Your task to perform on an android device: change alarm snooze length Image 0: 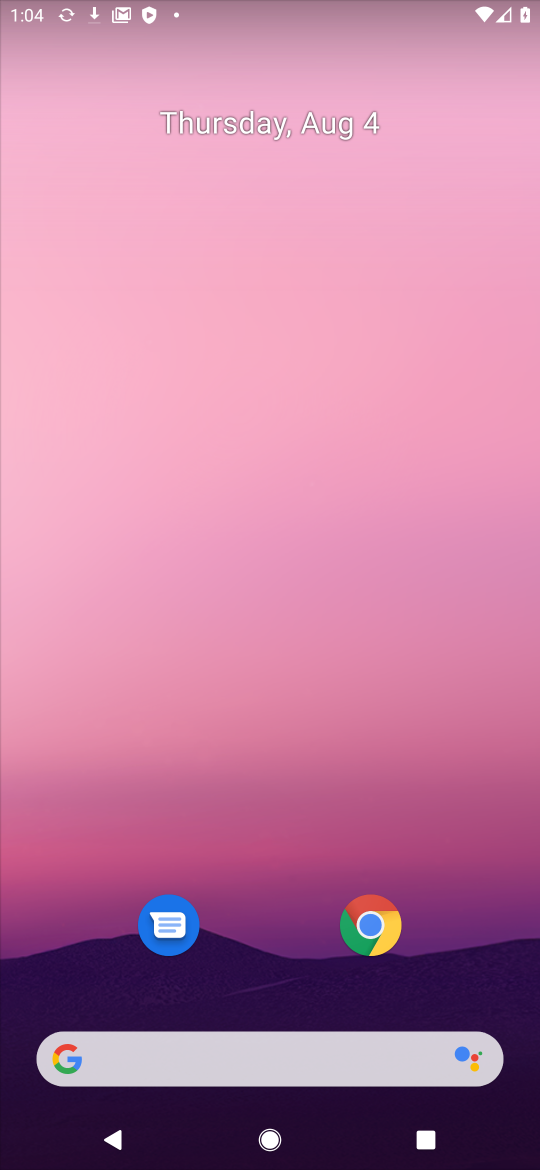
Step 0: drag from (263, 744) to (227, 315)
Your task to perform on an android device: change alarm snooze length Image 1: 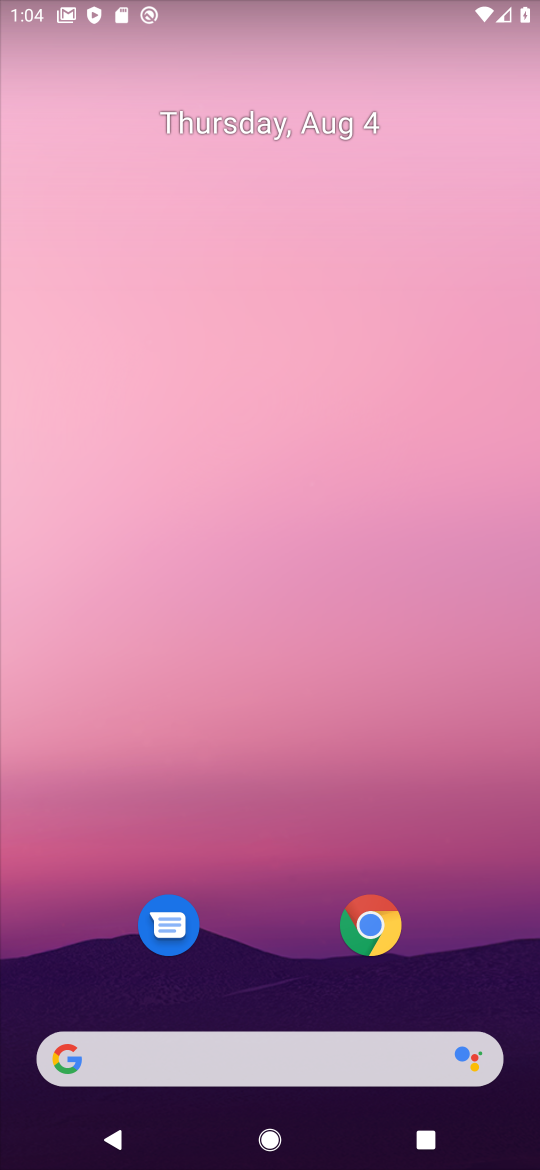
Step 1: drag from (282, 903) to (252, 24)
Your task to perform on an android device: change alarm snooze length Image 2: 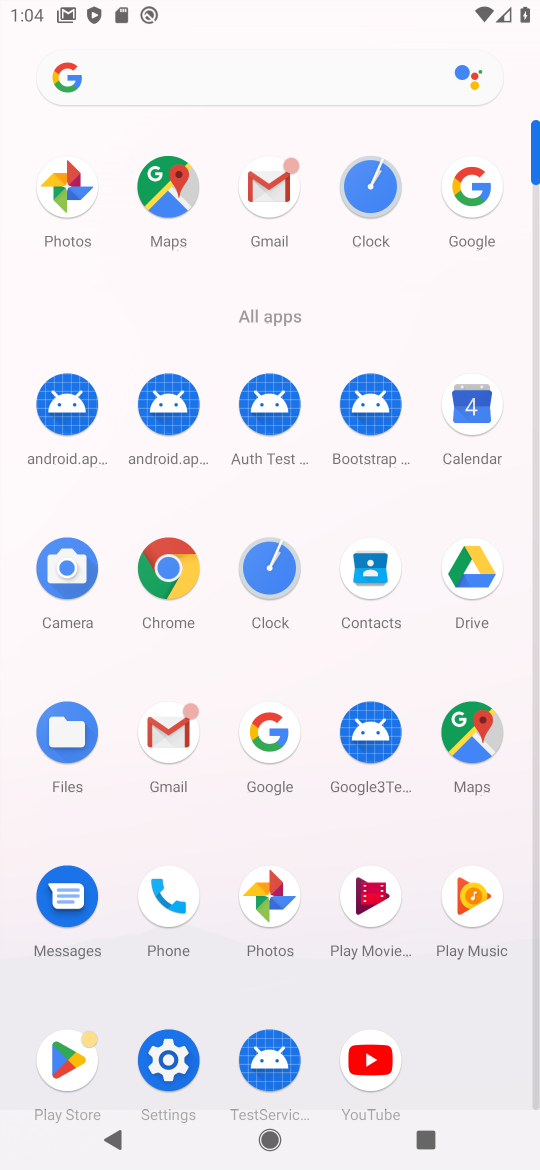
Step 2: click (375, 178)
Your task to perform on an android device: change alarm snooze length Image 3: 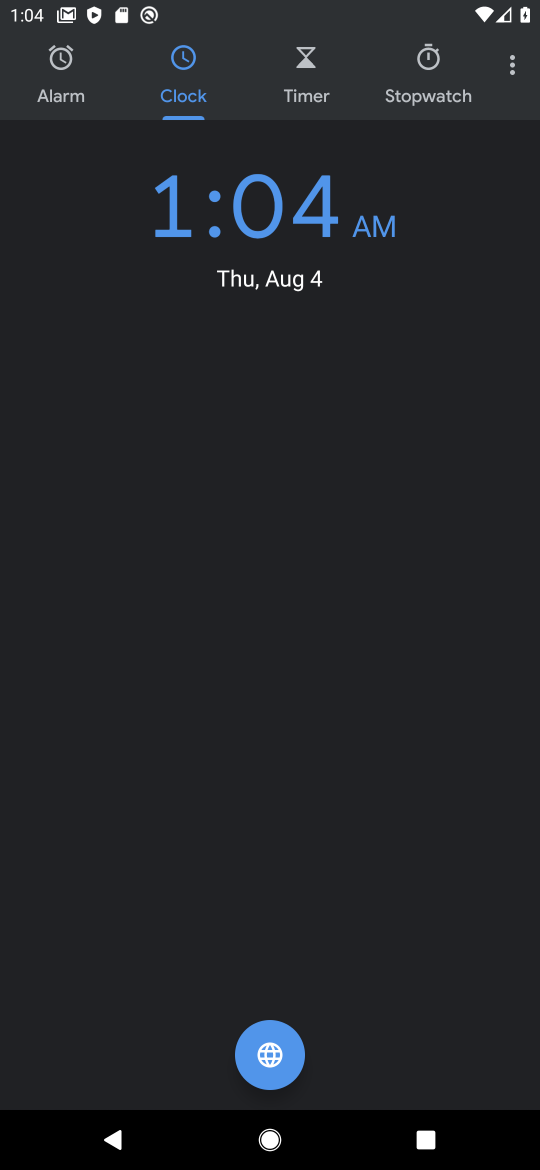
Step 3: click (45, 66)
Your task to perform on an android device: change alarm snooze length Image 4: 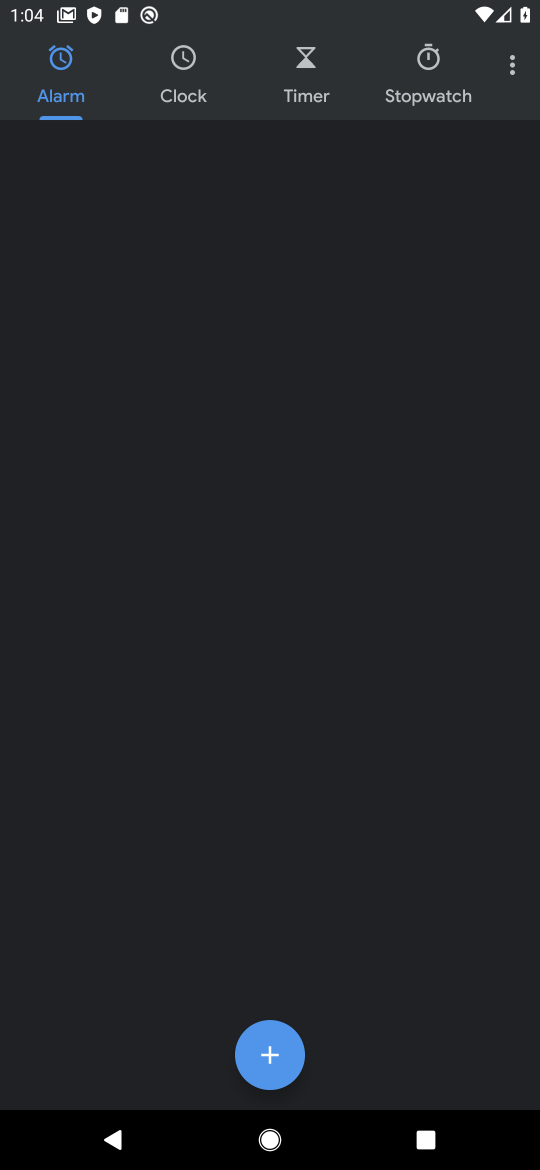
Step 4: click (508, 78)
Your task to perform on an android device: change alarm snooze length Image 5: 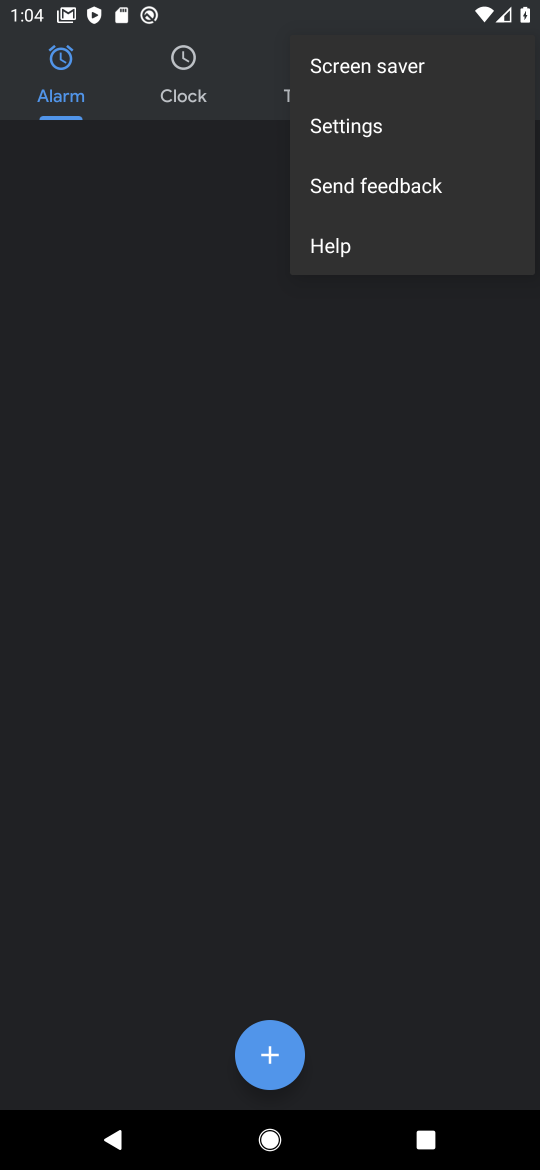
Step 5: click (405, 132)
Your task to perform on an android device: change alarm snooze length Image 6: 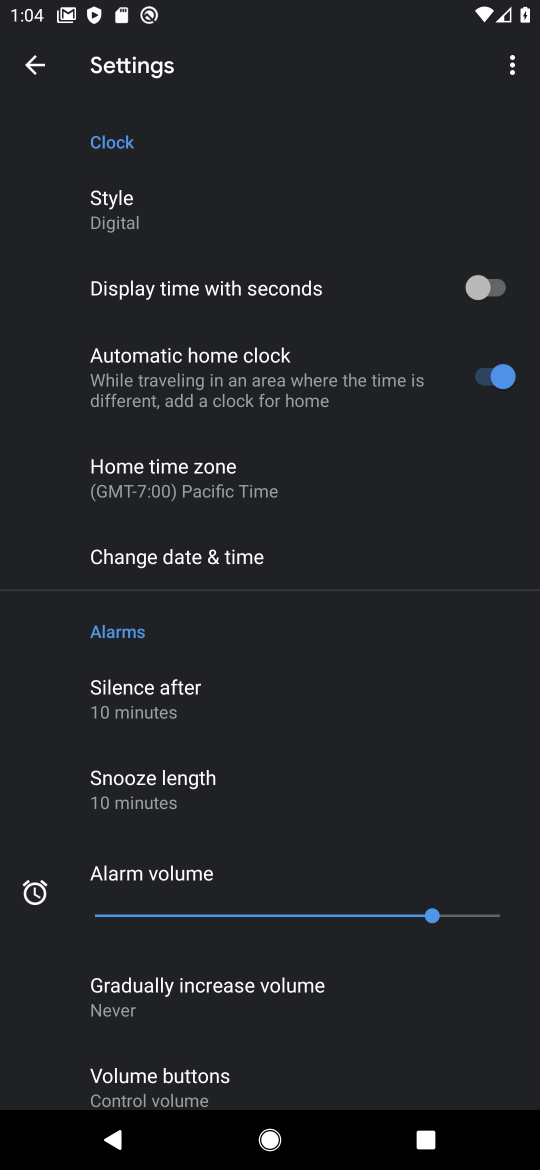
Step 6: click (194, 793)
Your task to perform on an android device: change alarm snooze length Image 7: 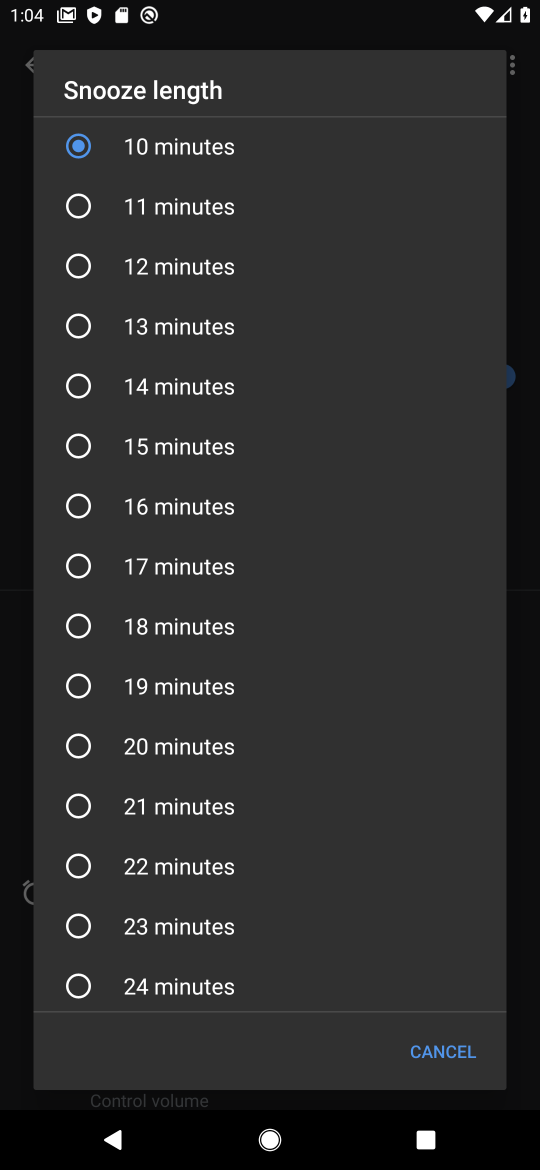
Step 7: click (84, 218)
Your task to perform on an android device: change alarm snooze length Image 8: 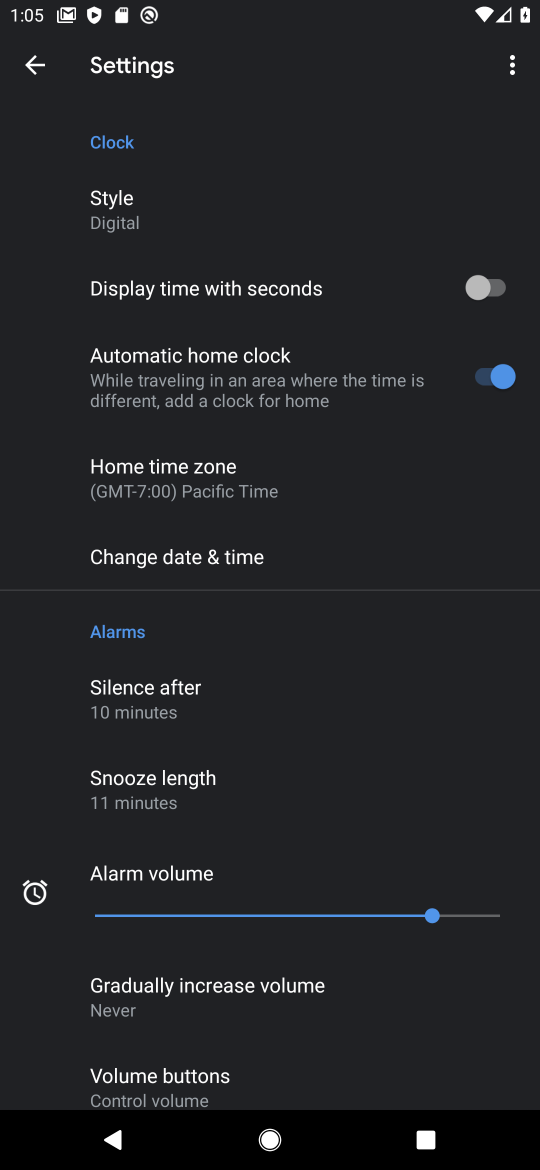
Step 8: task complete